Your task to perform on an android device: Open calendar and show me the fourth week of next month Image 0: 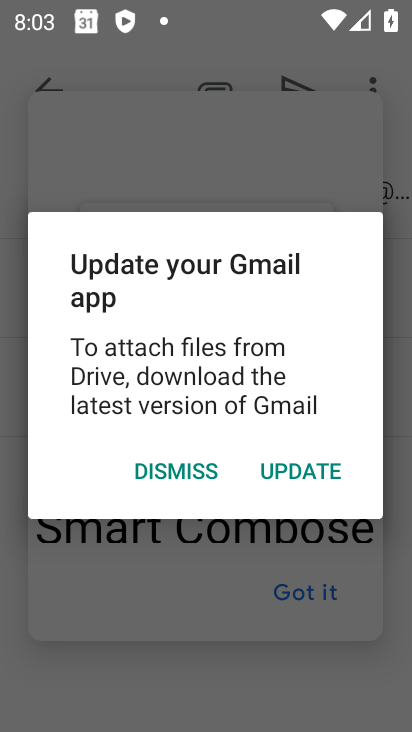
Step 0: press home button
Your task to perform on an android device: Open calendar and show me the fourth week of next month Image 1: 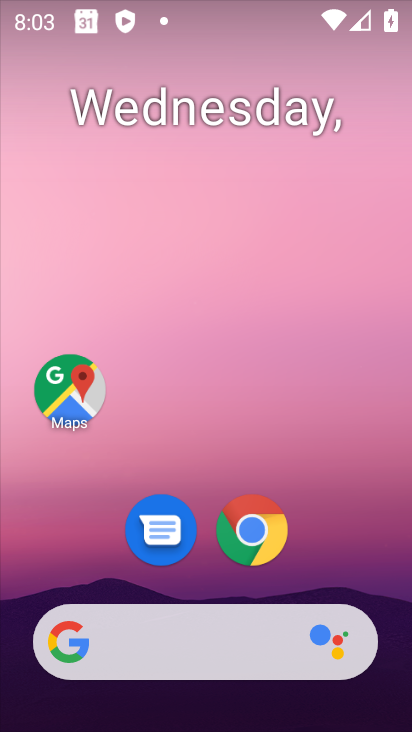
Step 1: drag from (209, 411) to (220, 97)
Your task to perform on an android device: Open calendar and show me the fourth week of next month Image 2: 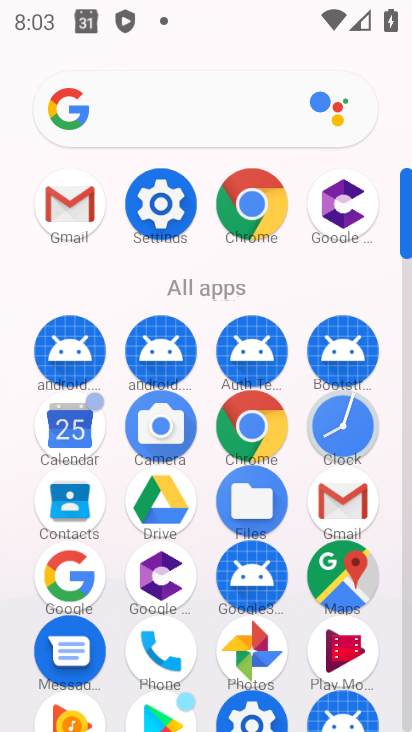
Step 2: click (68, 425)
Your task to perform on an android device: Open calendar and show me the fourth week of next month Image 3: 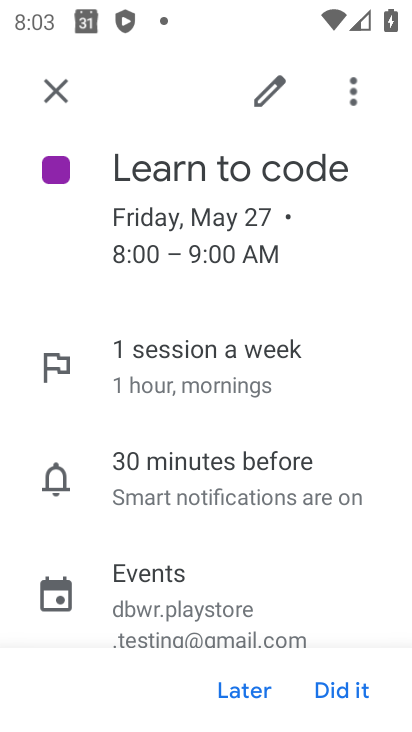
Step 3: click (235, 695)
Your task to perform on an android device: Open calendar and show me the fourth week of next month Image 4: 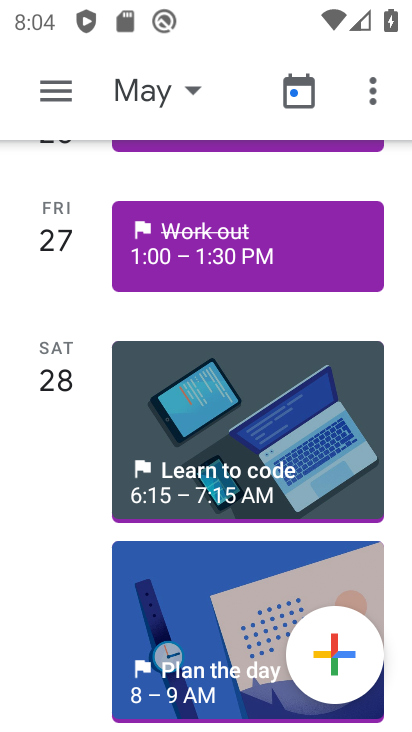
Step 4: click (168, 93)
Your task to perform on an android device: Open calendar and show me the fourth week of next month Image 5: 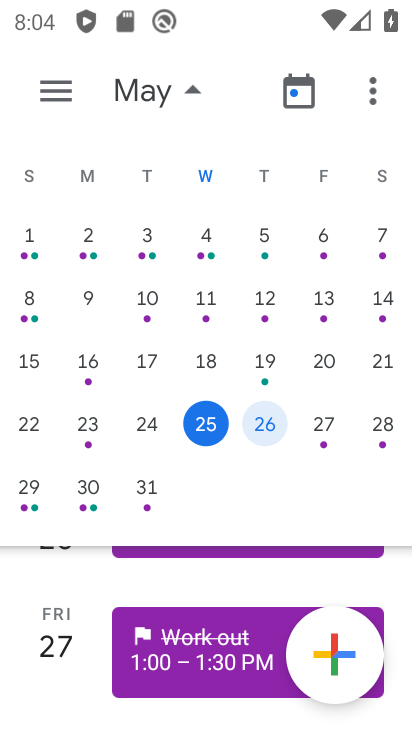
Step 5: drag from (380, 309) to (3, 271)
Your task to perform on an android device: Open calendar and show me the fourth week of next month Image 6: 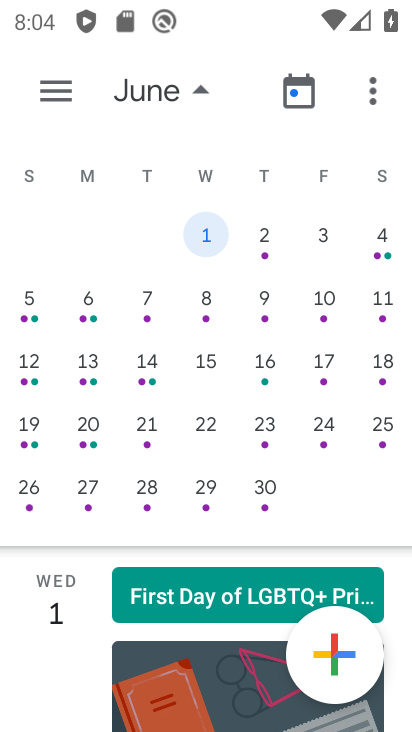
Step 6: click (83, 420)
Your task to perform on an android device: Open calendar and show me the fourth week of next month Image 7: 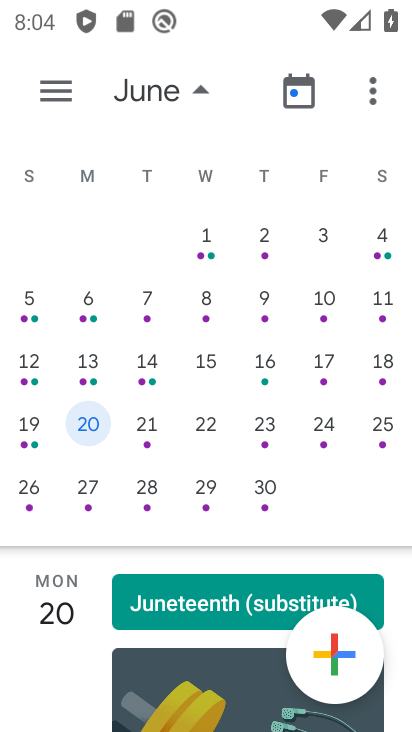
Step 7: task complete